Your task to perform on an android device: turn off translation in the chrome app Image 0: 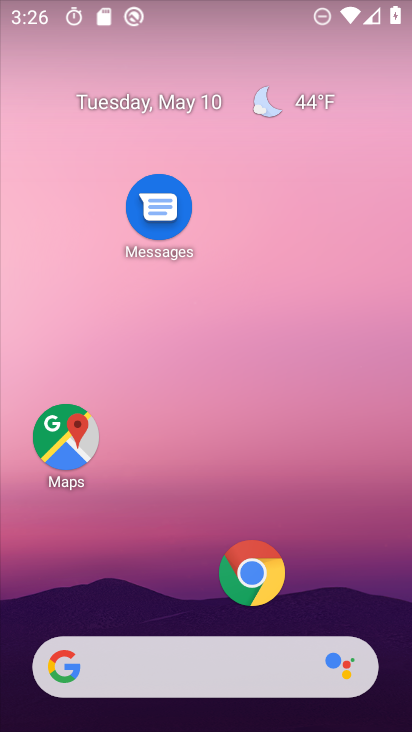
Step 0: click (257, 592)
Your task to perform on an android device: turn off translation in the chrome app Image 1: 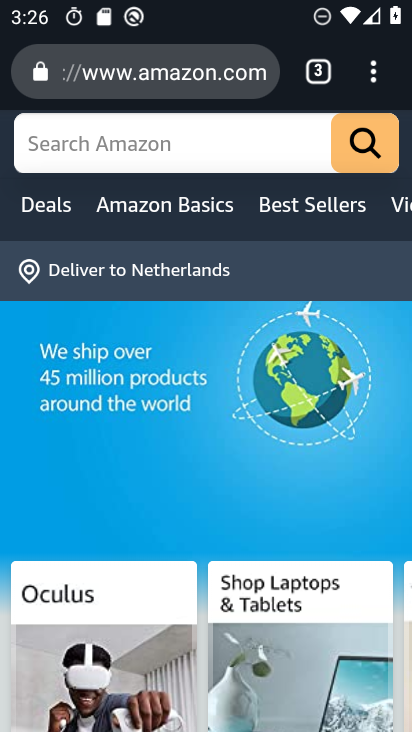
Step 1: drag from (379, 72) to (136, 580)
Your task to perform on an android device: turn off translation in the chrome app Image 2: 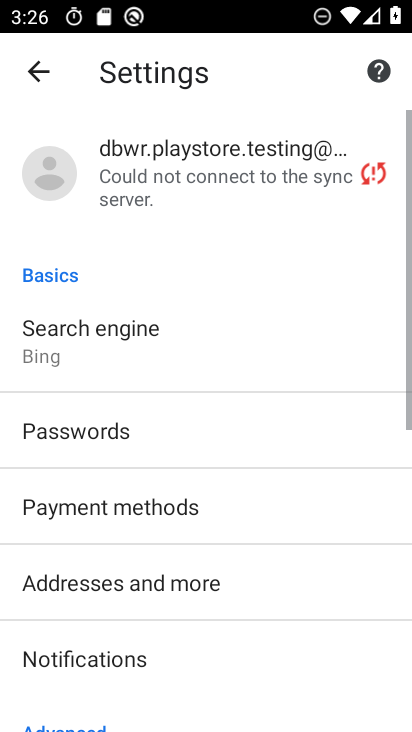
Step 2: drag from (199, 663) to (238, 475)
Your task to perform on an android device: turn off translation in the chrome app Image 3: 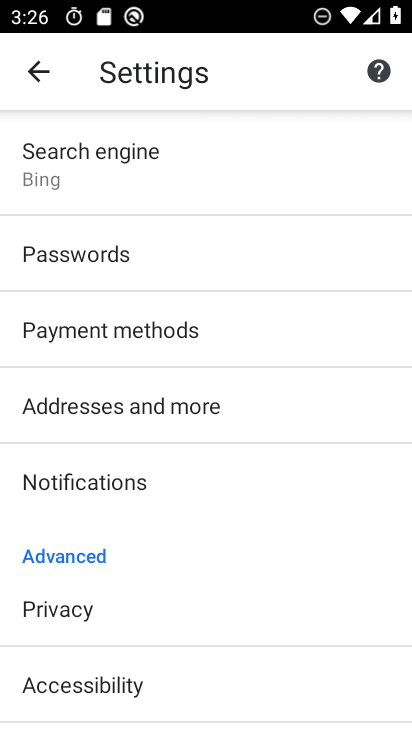
Step 3: drag from (209, 603) to (275, 428)
Your task to perform on an android device: turn off translation in the chrome app Image 4: 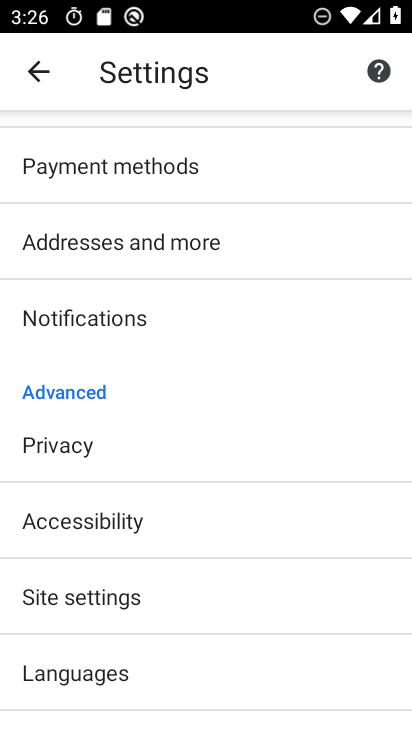
Step 4: drag from (185, 678) to (236, 470)
Your task to perform on an android device: turn off translation in the chrome app Image 5: 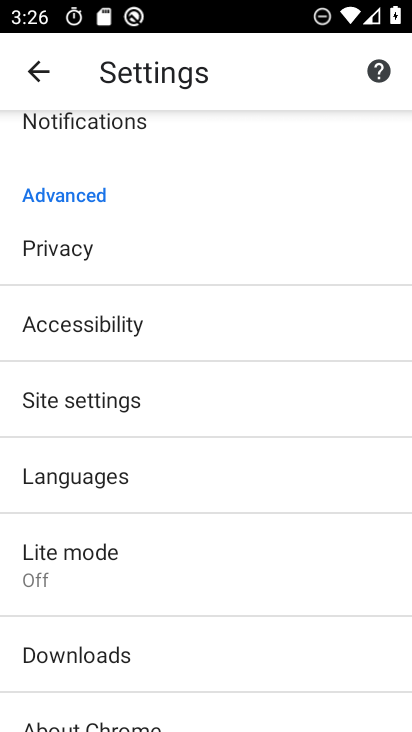
Step 5: drag from (134, 677) to (185, 470)
Your task to perform on an android device: turn off translation in the chrome app Image 6: 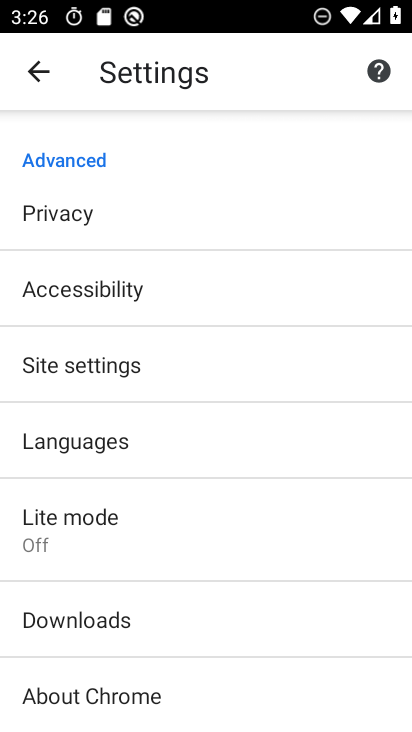
Step 6: click (147, 458)
Your task to perform on an android device: turn off translation in the chrome app Image 7: 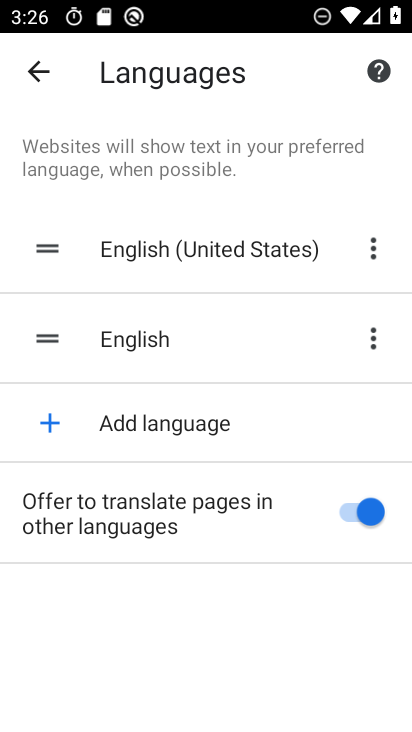
Step 7: click (344, 510)
Your task to perform on an android device: turn off translation in the chrome app Image 8: 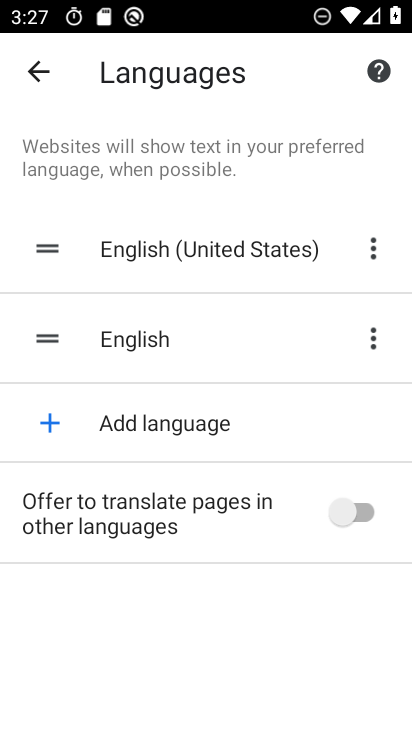
Step 8: task complete